Your task to perform on an android device: Open the map Image 0: 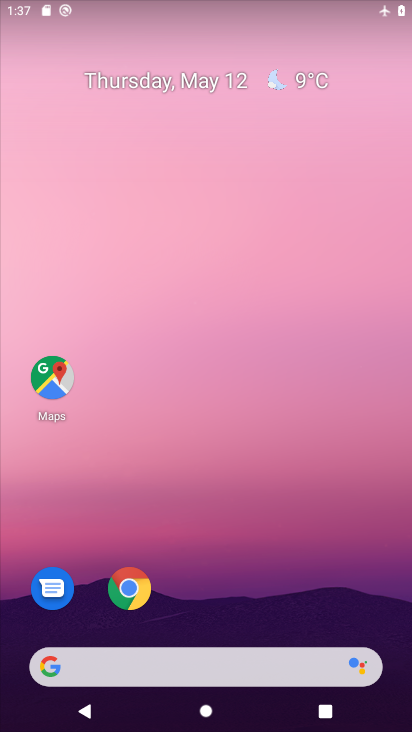
Step 0: drag from (327, 560) to (400, 118)
Your task to perform on an android device: Open the map Image 1: 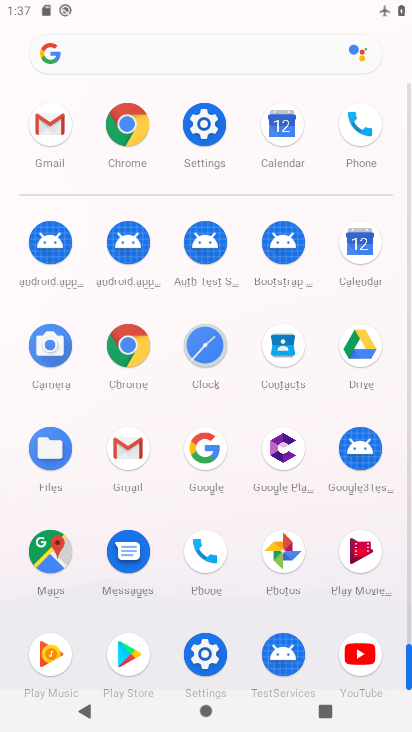
Step 1: click (45, 547)
Your task to perform on an android device: Open the map Image 2: 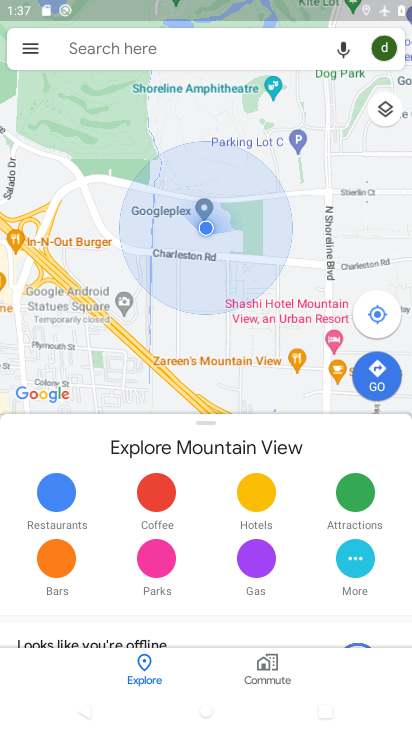
Step 2: task complete